Your task to perform on an android device: open a new tab in the chrome app Image 0: 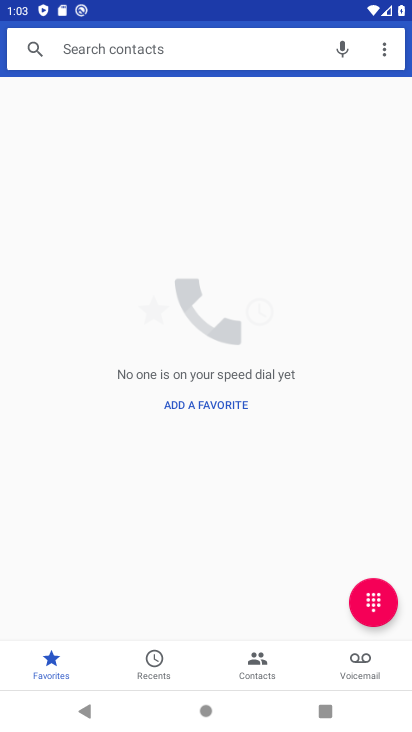
Step 0: press home button
Your task to perform on an android device: open a new tab in the chrome app Image 1: 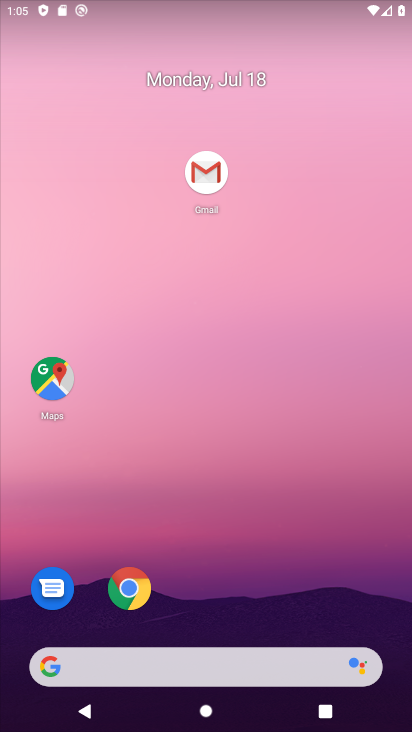
Step 1: click (127, 586)
Your task to perform on an android device: open a new tab in the chrome app Image 2: 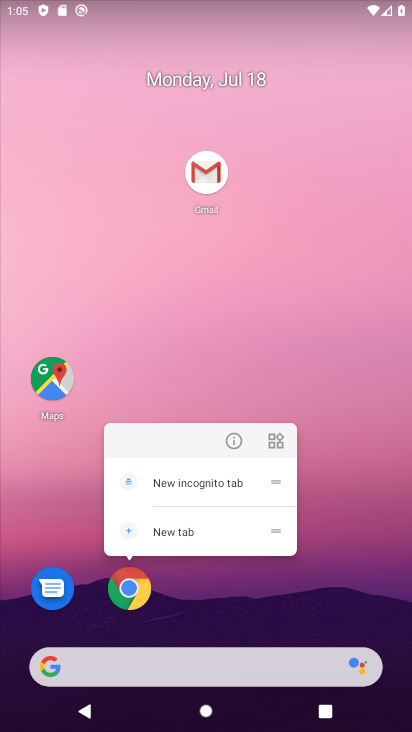
Step 2: click (127, 586)
Your task to perform on an android device: open a new tab in the chrome app Image 3: 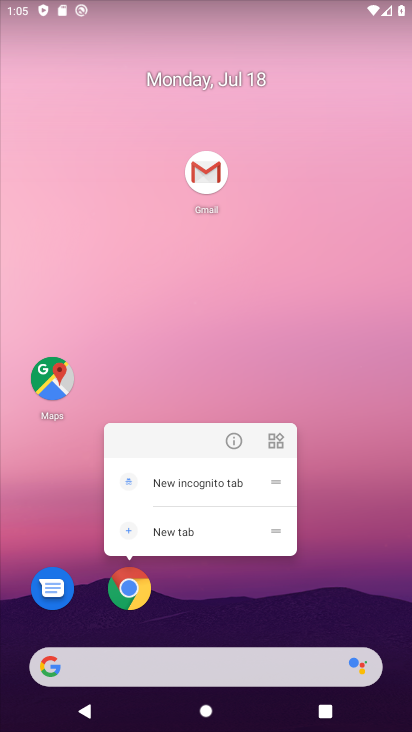
Step 3: click (124, 590)
Your task to perform on an android device: open a new tab in the chrome app Image 4: 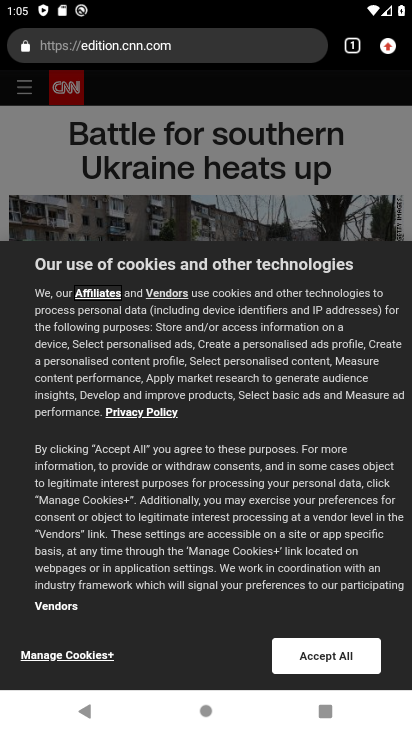
Step 4: click (349, 49)
Your task to perform on an android device: open a new tab in the chrome app Image 5: 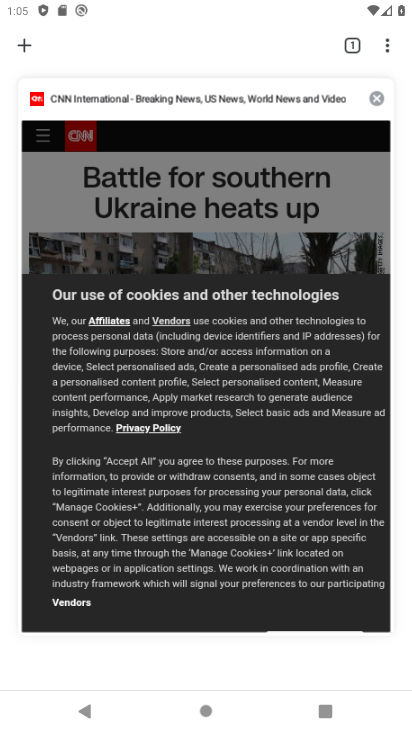
Step 5: click (22, 45)
Your task to perform on an android device: open a new tab in the chrome app Image 6: 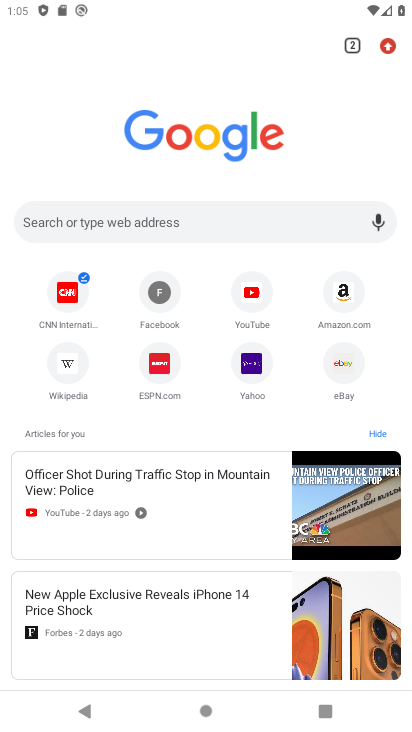
Step 6: task complete